Your task to perform on an android device: Go to calendar. Show me events next week Image 0: 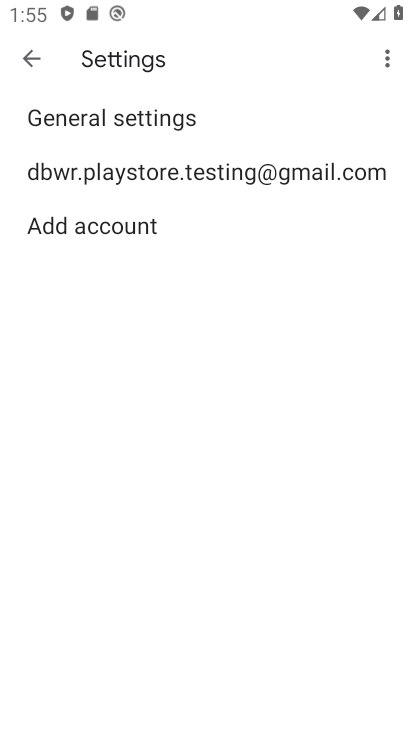
Step 0: press home button
Your task to perform on an android device: Go to calendar. Show me events next week Image 1: 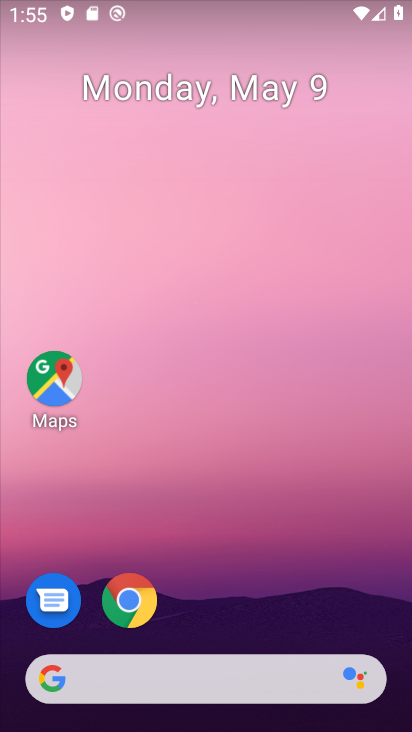
Step 1: drag from (268, 633) to (306, 0)
Your task to perform on an android device: Go to calendar. Show me events next week Image 2: 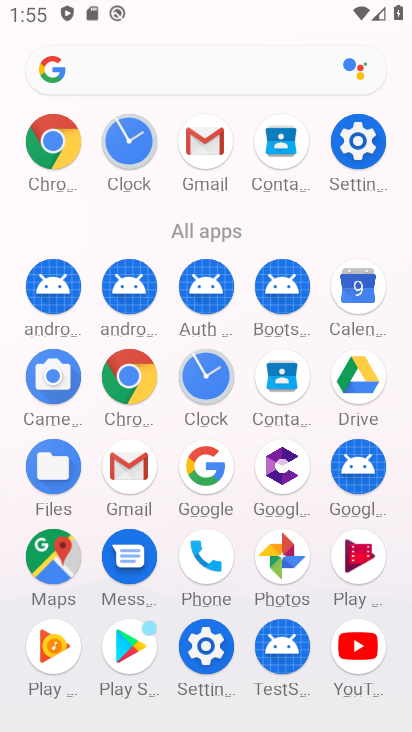
Step 2: click (356, 302)
Your task to perform on an android device: Go to calendar. Show me events next week Image 3: 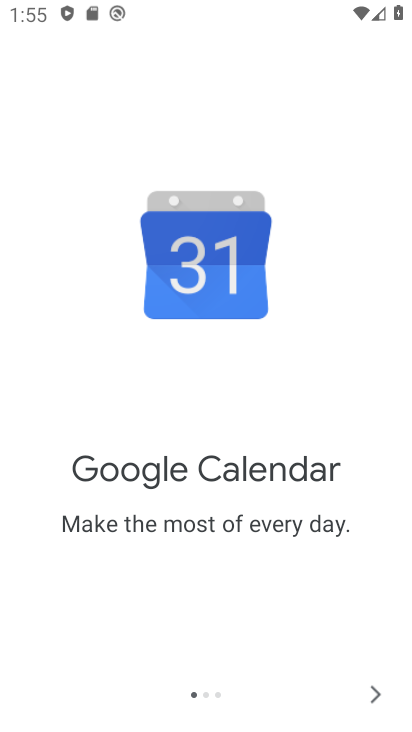
Step 3: click (381, 688)
Your task to perform on an android device: Go to calendar. Show me events next week Image 4: 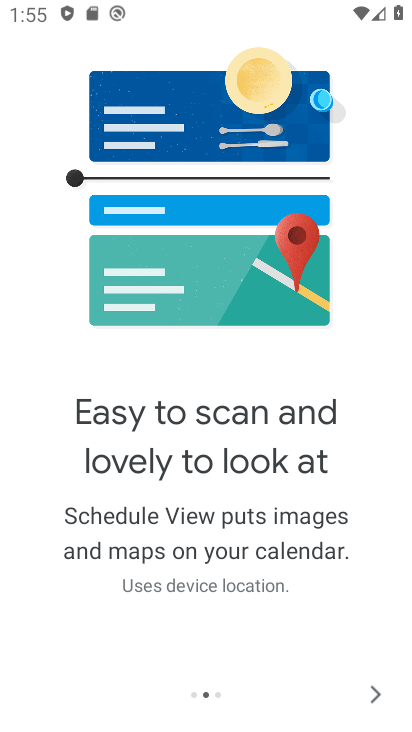
Step 4: click (385, 707)
Your task to perform on an android device: Go to calendar. Show me events next week Image 5: 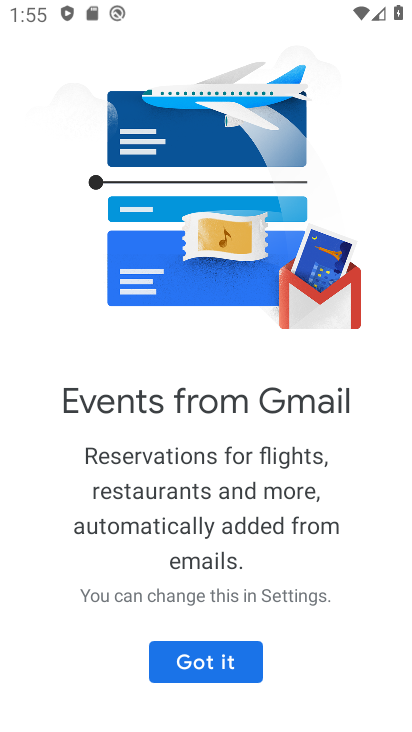
Step 5: click (182, 673)
Your task to perform on an android device: Go to calendar. Show me events next week Image 6: 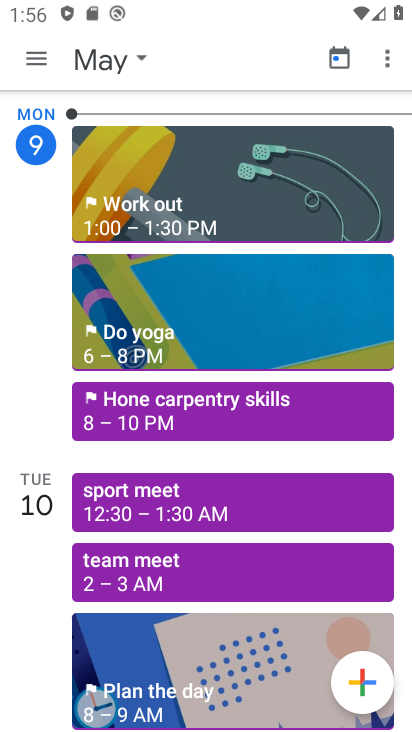
Step 6: click (123, 49)
Your task to perform on an android device: Go to calendar. Show me events next week Image 7: 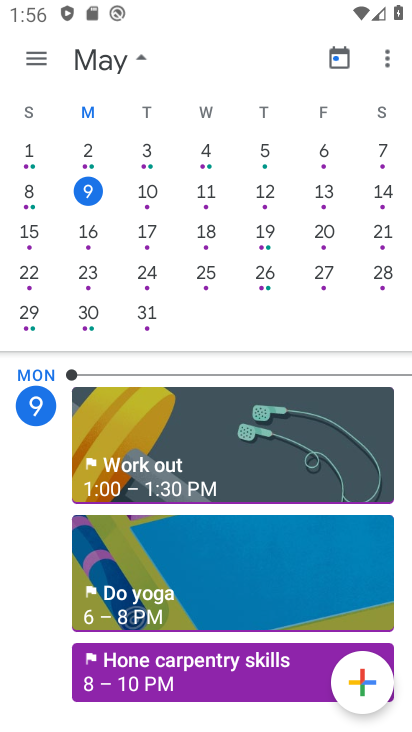
Step 7: click (38, 244)
Your task to perform on an android device: Go to calendar. Show me events next week Image 8: 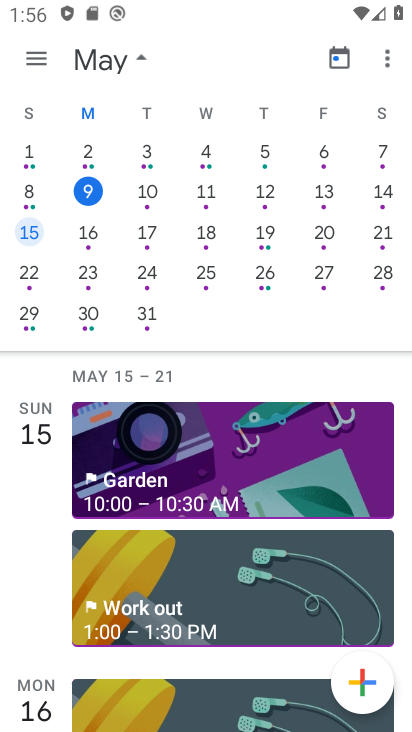
Step 8: click (98, 242)
Your task to perform on an android device: Go to calendar. Show me events next week Image 9: 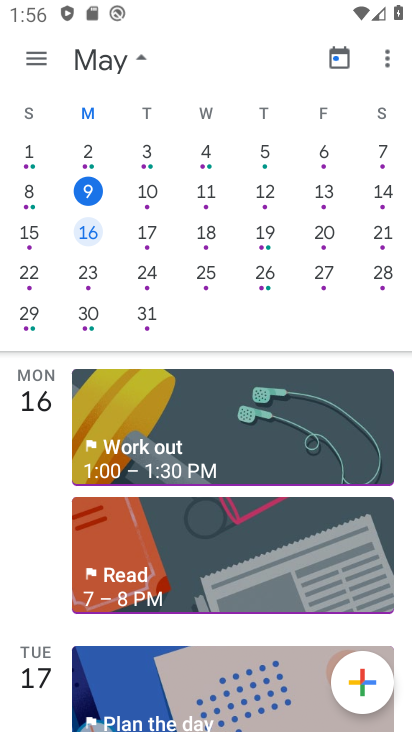
Step 9: click (157, 242)
Your task to perform on an android device: Go to calendar. Show me events next week Image 10: 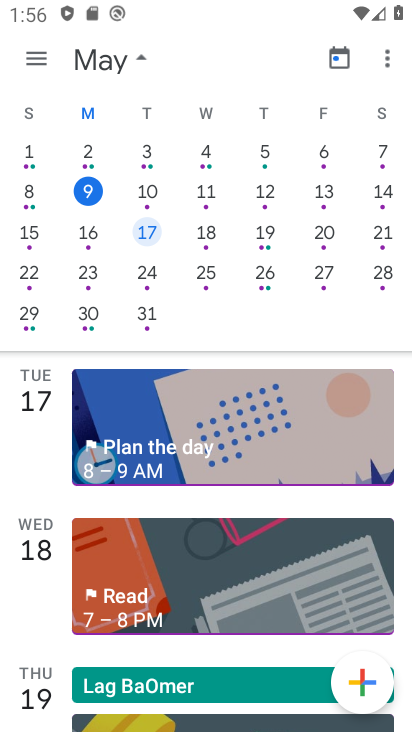
Step 10: click (215, 243)
Your task to perform on an android device: Go to calendar. Show me events next week Image 11: 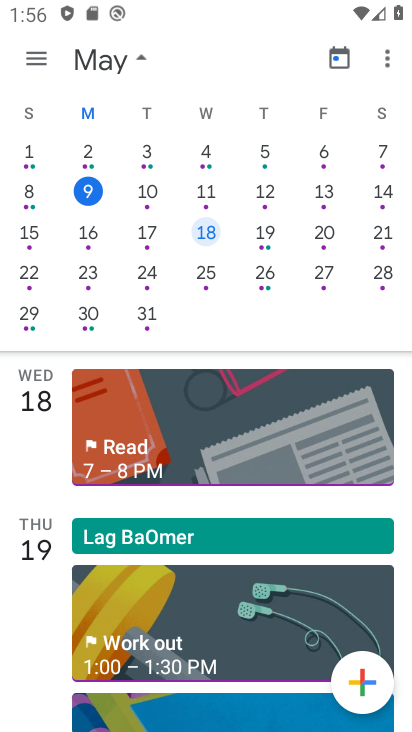
Step 11: click (277, 235)
Your task to perform on an android device: Go to calendar. Show me events next week Image 12: 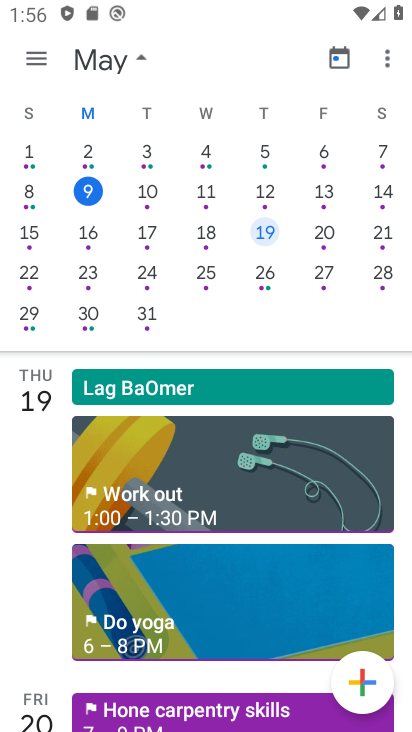
Step 12: click (338, 237)
Your task to perform on an android device: Go to calendar. Show me events next week Image 13: 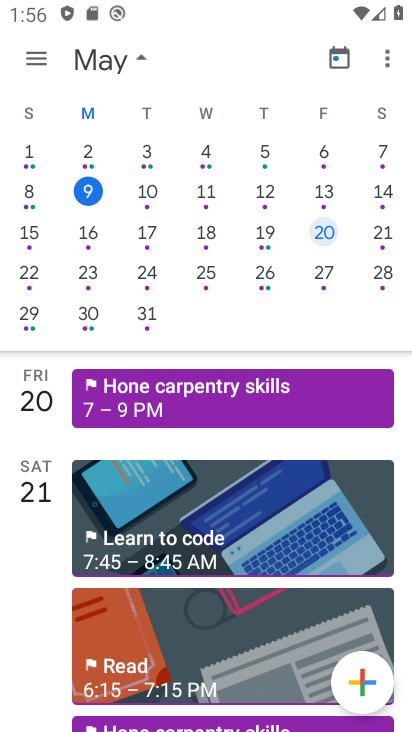
Step 13: click (384, 240)
Your task to perform on an android device: Go to calendar. Show me events next week Image 14: 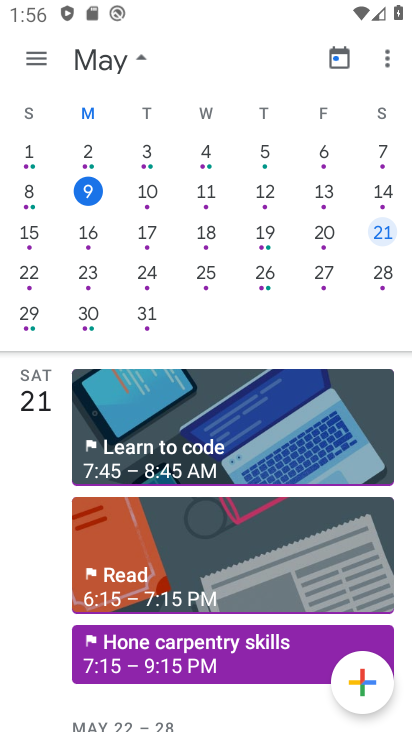
Step 14: task complete